Your task to perform on an android device: Clear all items from cart on target. Add "corsair k70" to the cart on target, then select checkout. Image 0: 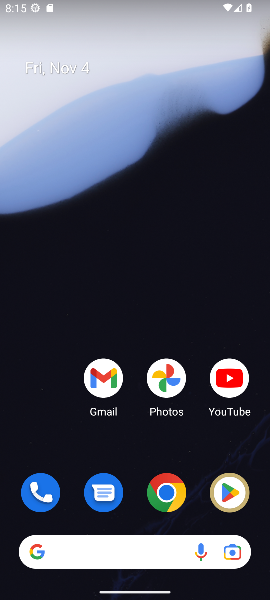
Step 0: drag from (127, 442) to (129, 80)
Your task to perform on an android device: Clear all items from cart on target. Add "corsair k70" to the cart on target, then select checkout. Image 1: 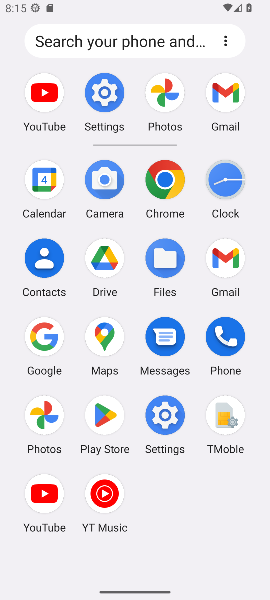
Step 1: click (167, 179)
Your task to perform on an android device: Clear all items from cart on target. Add "corsair k70" to the cart on target, then select checkout. Image 2: 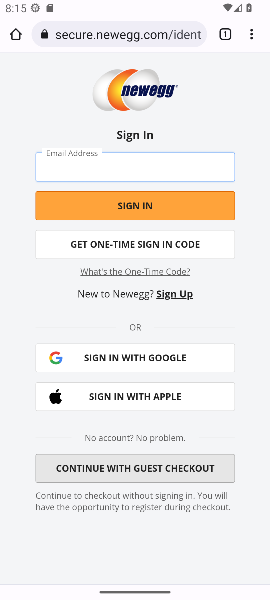
Step 2: click (143, 37)
Your task to perform on an android device: Clear all items from cart on target. Add "corsair k70" to the cart on target, then select checkout. Image 3: 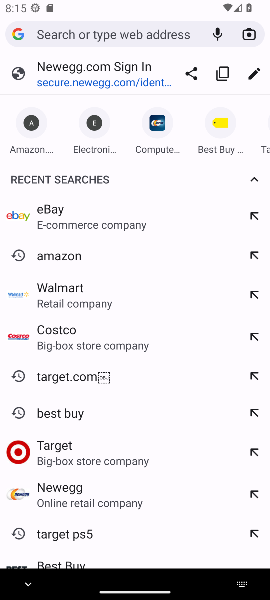
Step 3: type "target.com"
Your task to perform on an android device: Clear all items from cart on target. Add "corsair k70" to the cart on target, then select checkout. Image 4: 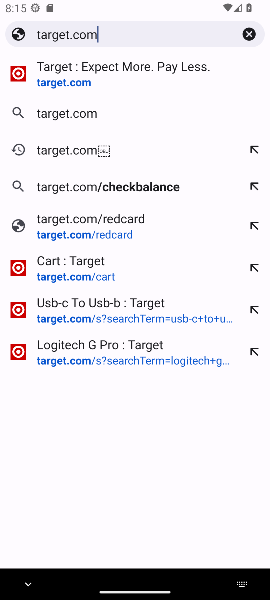
Step 4: press enter
Your task to perform on an android device: Clear all items from cart on target. Add "corsair k70" to the cart on target, then select checkout. Image 5: 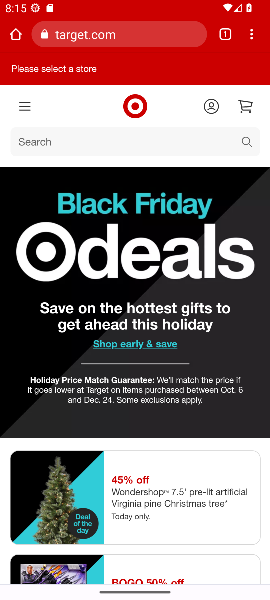
Step 5: click (254, 102)
Your task to perform on an android device: Clear all items from cart on target. Add "corsair k70" to the cart on target, then select checkout. Image 6: 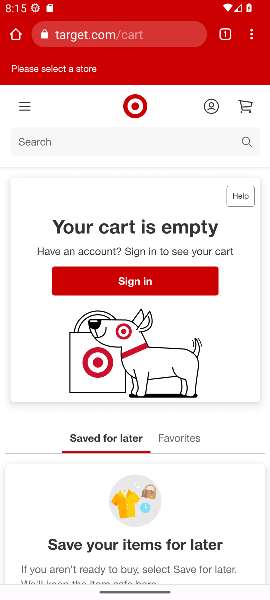
Step 6: click (107, 140)
Your task to perform on an android device: Clear all items from cart on target. Add "corsair k70" to the cart on target, then select checkout. Image 7: 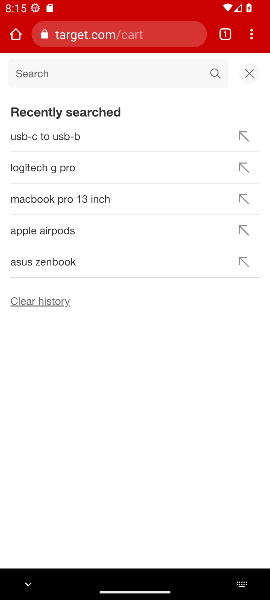
Step 7: type "corsair k70"
Your task to perform on an android device: Clear all items from cart on target. Add "corsair k70" to the cart on target, then select checkout. Image 8: 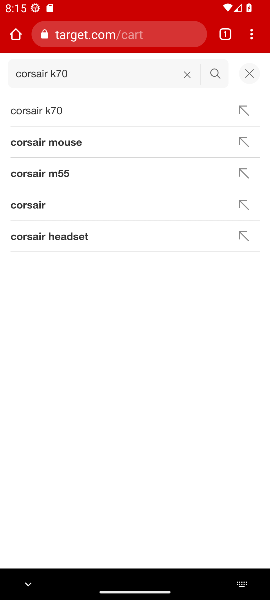
Step 8: press enter
Your task to perform on an android device: Clear all items from cart on target. Add "corsair k70" to the cart on target, then select checkout. Image 9: 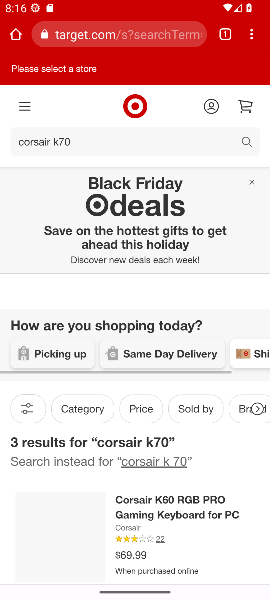
Step 9: task complete